Your task to perform on an android device: stop showing notifications on the lock screen Image 0: 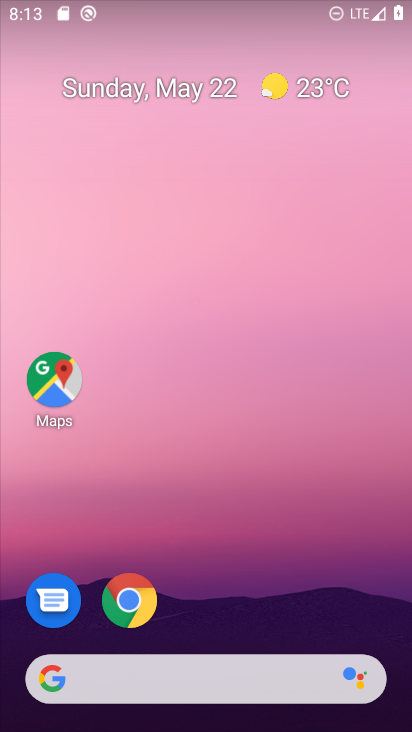
Step 0: drag from (350, 626) to (246, 5)
Your task to perform on an android device: stop showing notifications on the lock screen Image 1: 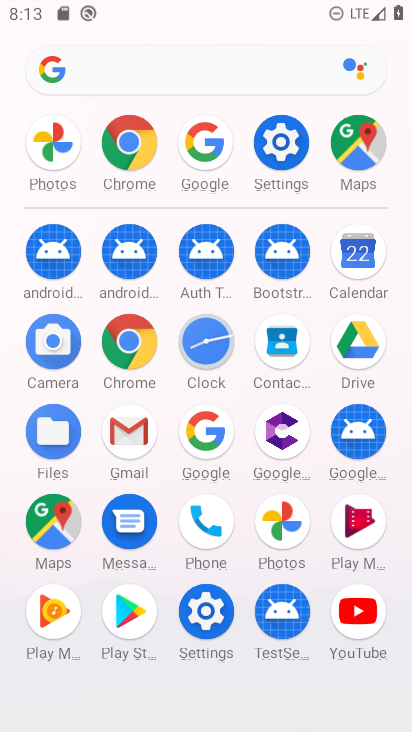
Step 1: click (199, 627)
Your task to perform on an android device: stop showing notifications on the lock screen Image 2: 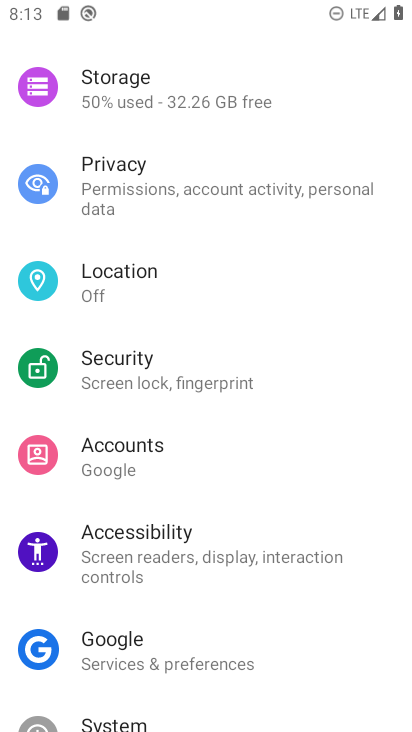
Step 2: drag from (192, 153) to (232, 667)
Your task to perform on an android device: stop showing notifications on the lock screen Image 3: 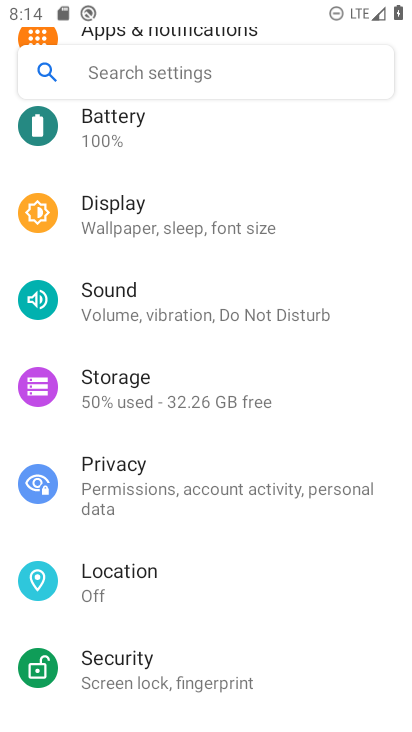
Step 3: drag from (267, 145) to (290, 630)
Your task to perform on an android device: stop showing notifications on the lock screen Image 4: 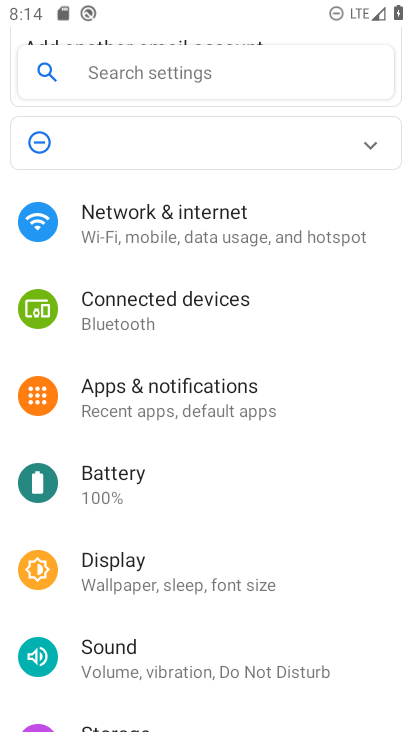
Step 4: click (256, 394)
Your task to perform on an android device: stop showing notifications on the lock screen Image 5: 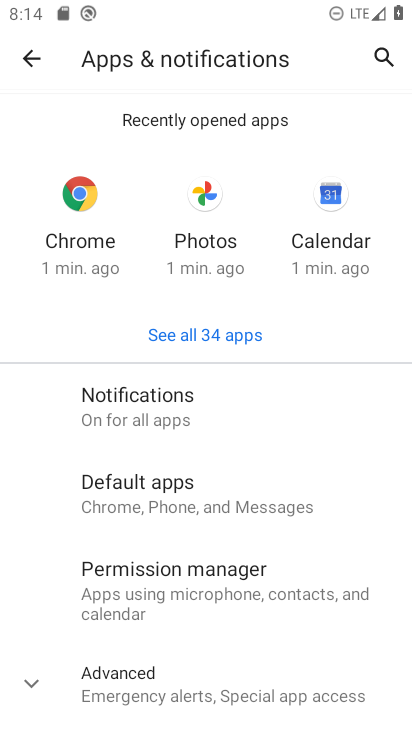
Step 5: drag from (192, 639) to (214, 353)
Your task to perform on an android device: stop showing notifications on the lock screen Image 6: 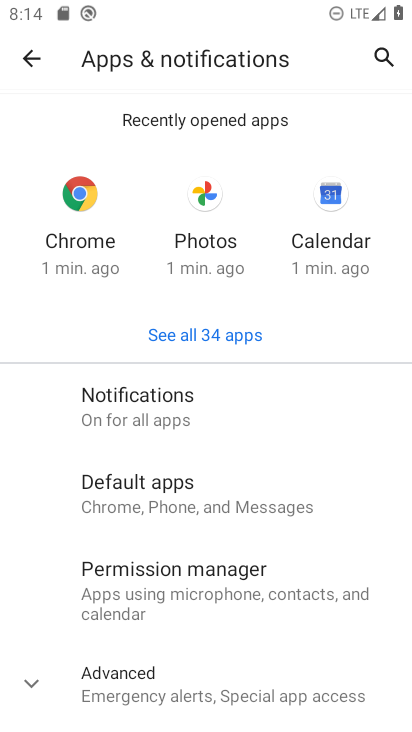
Step 6: click (195, 401)
Your task to perform on an android device: stop showing notifications on the lock screen Image 7: 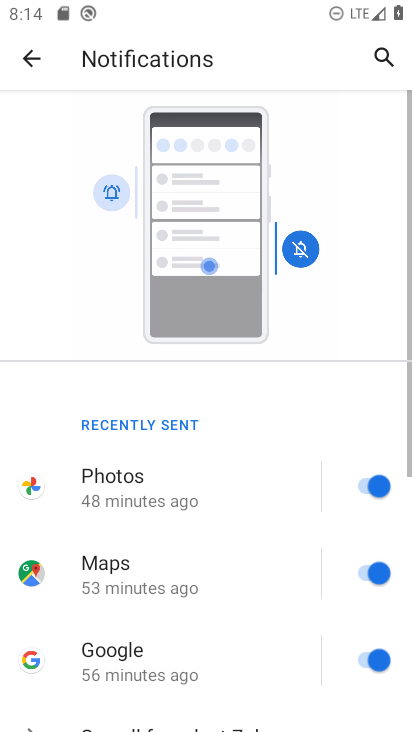
Step 7: drag from (255, 619) to (270, 72)
Your task to perform on an android device: stop showing notifications on the lock screen Image 8: 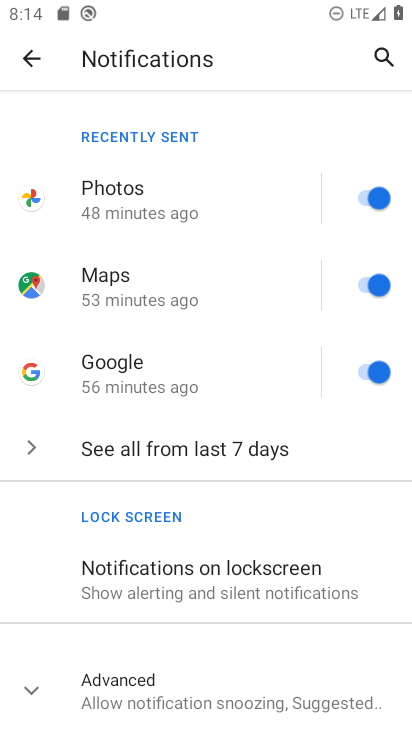
Step 8: click (283, 579)
Your task to perform on an android device: stop showing notifications on the lock screen Image 9: 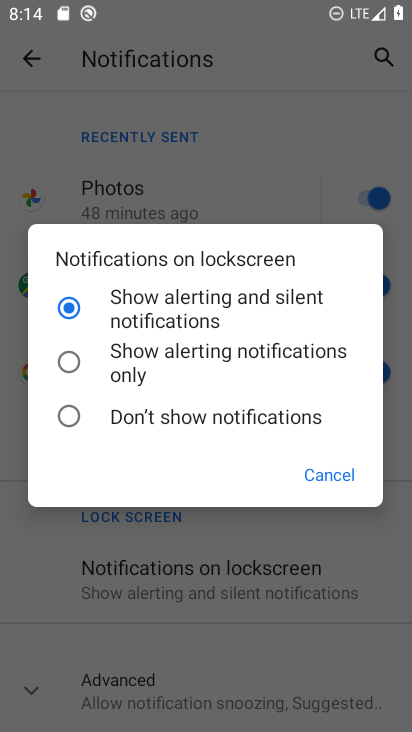
Step 9: click (70, 415)
Your task to perform on an android device: stop showing notifications on the lock screen Image 10: 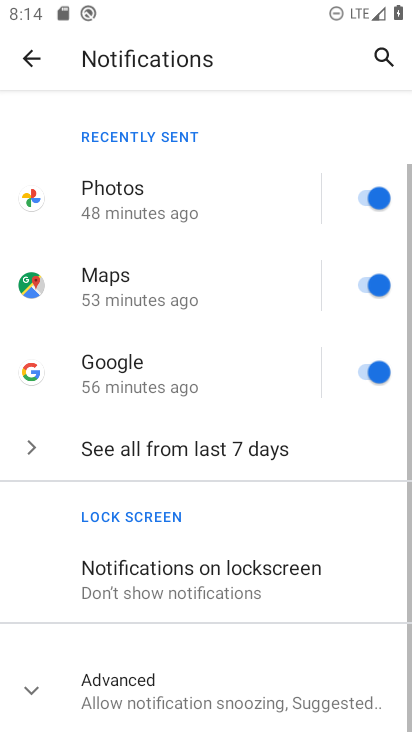
Step 10: task complete